Your task to perform on an android device: Go to sound settings Image 0: 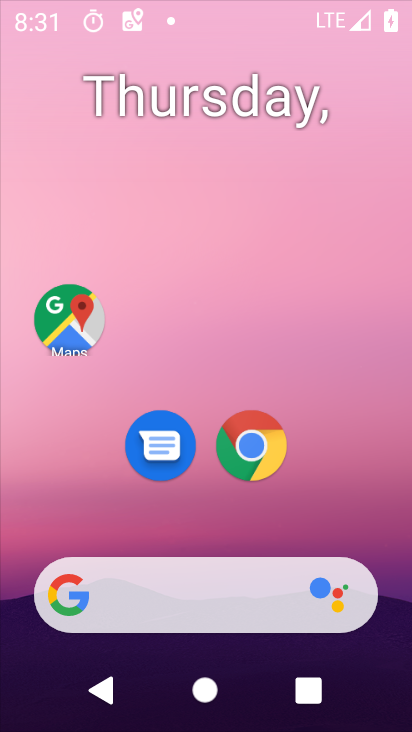
Step 0: click (292, 211)
Your task to perform on an android device: Go to sound settings Image 1: 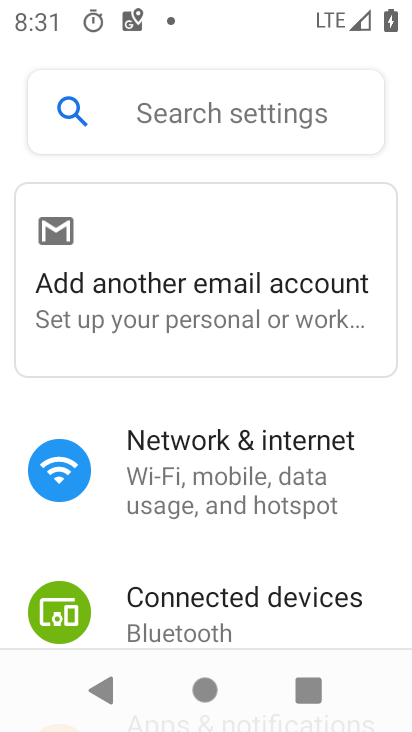
Step 1: drag from (211, 510) to (214, 199)
Your task to perform on an android device: Go to sound settings Image 2: 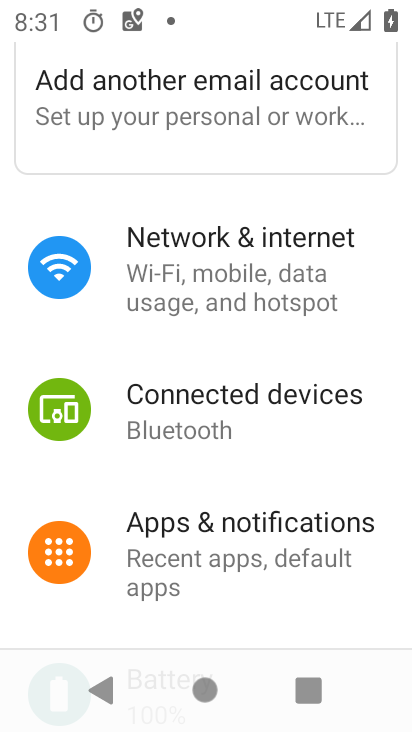
Step 2: drag from (176, 598) to (281, 107)
Your task to perform on an android device: Go to sound settings Image 3: 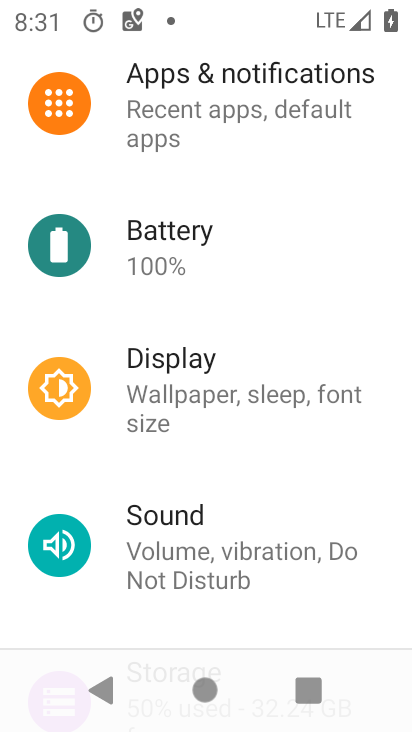
Step 3: click (205, 540)
Your task to perform on an android device: Go to sound settings Image 4: 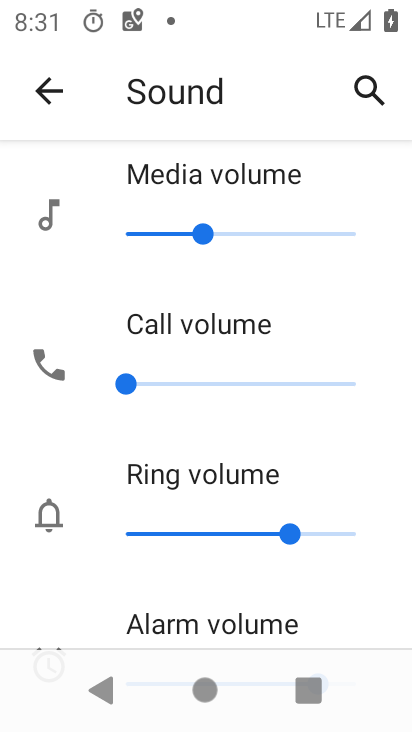
Step 4: task complete